Your task to perform on an android device: turn off picture-in-picture Image 0: 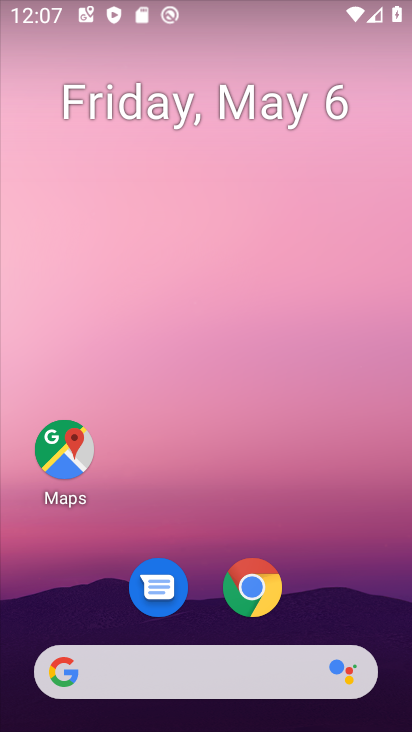
Step 0: drag from (184, 605) to (272, 0)
Your task to perform on an android device: turn off picture-in-picture Image 1: 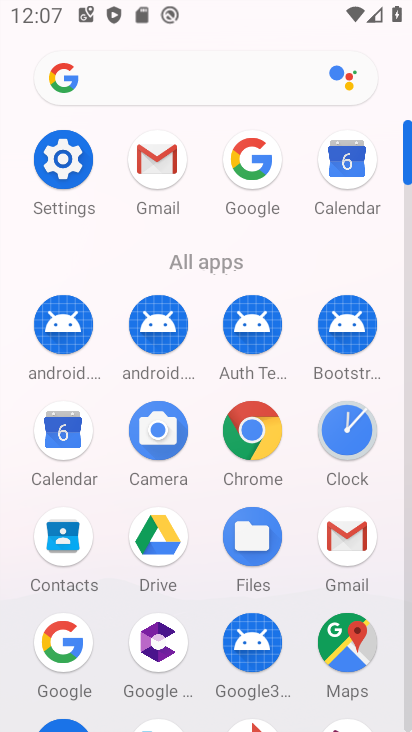
Step 1: click (71, 156)
Your task to perform on an android device: turn off picture-in-picture Image 2: 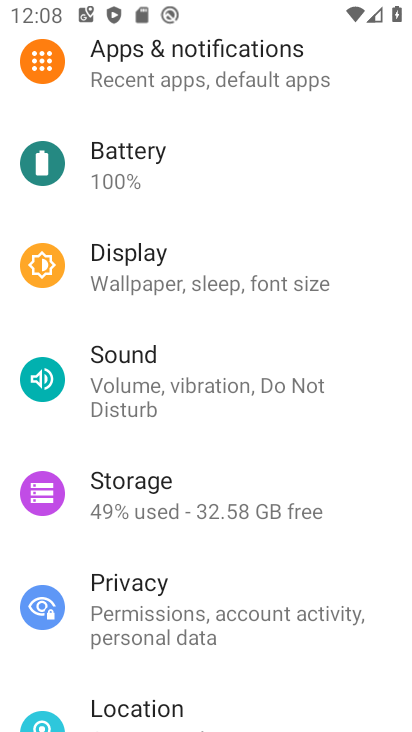
Step 2: drag from (247, 113) to (179, 420)
Your task to perform on an android device: turn off picture-in-picture Image 3: 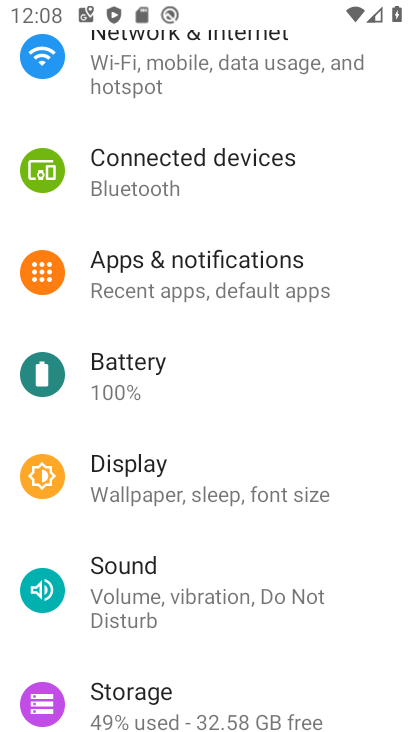
Step 3: click (186, 270)
Your task to perform on an android device: turn off picture-in-picture Image 4: 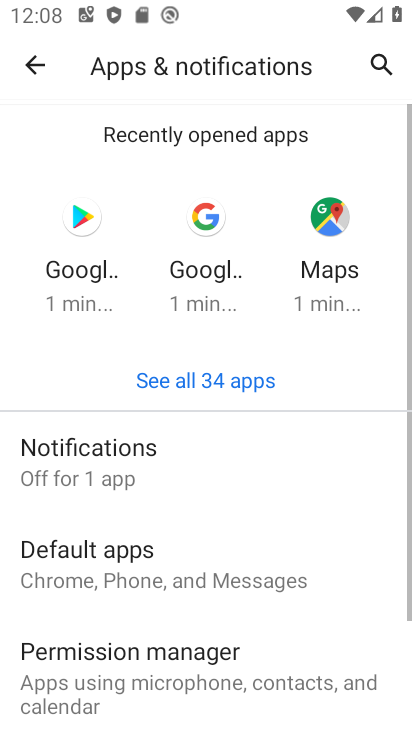
Step 4: drag from (186, 670) to (326, 25)
Your task to perform on an android device: turn off picture-in-picture Image 5: 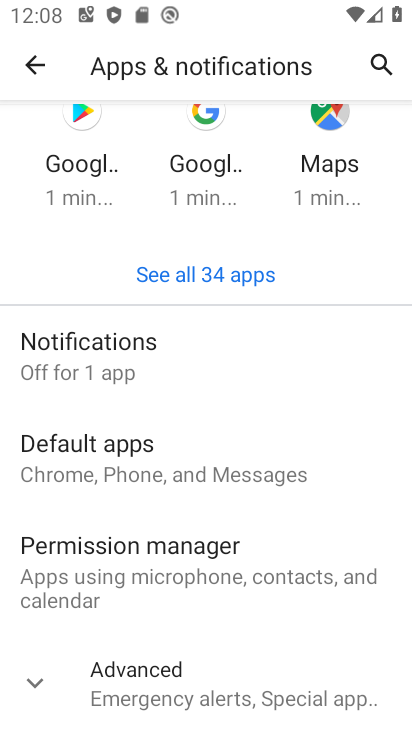
Step 5: drag from (203, 643) to (301, 24)
Your task to perform on an android device: turn off picture-in-picture Image 6: 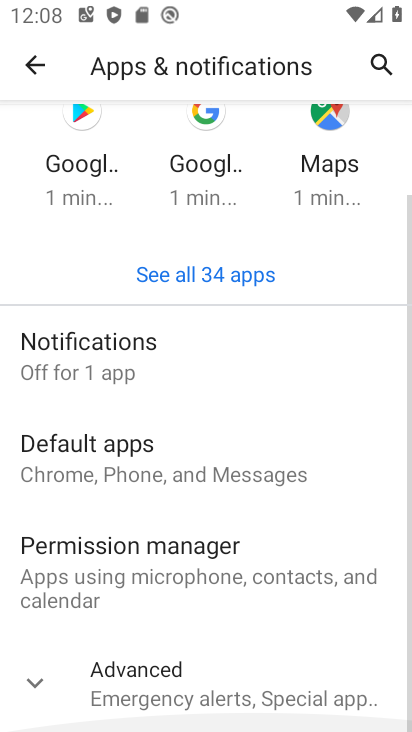
Step 6: click (250, 685)
Your task to perform on an android device: turn off picture-in-picture Image 7: 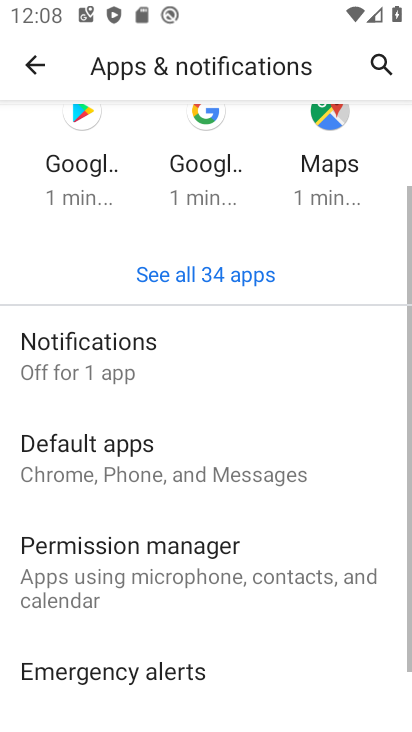
Step 7: drag from (232, 671) to (293, 124)
Your task to perform on an android device: turn off picture-in-picture Image 8: 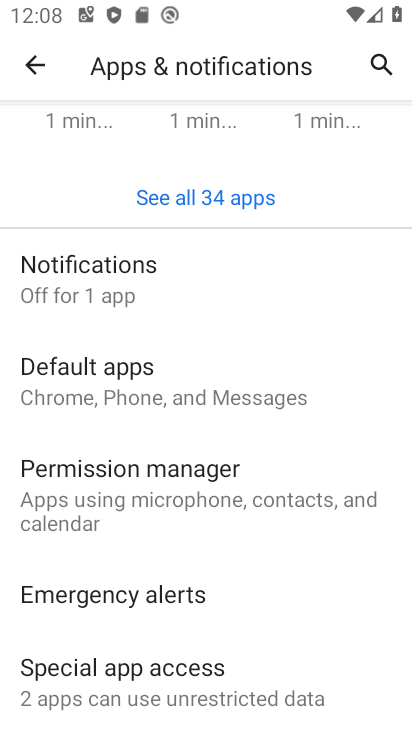
Step 8: click (149, 676)
Your task to perform on an android device: turn off picture-in-picture Image 9: 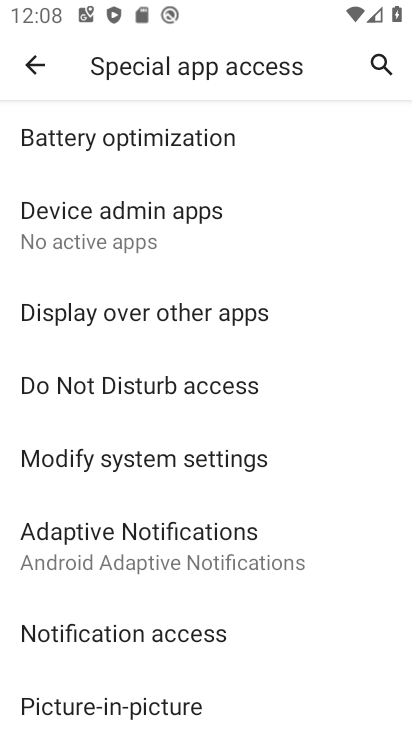
Step 9: click (140, 693)
Your task to perform on an android device: turn off picture-in-picture Image 10: 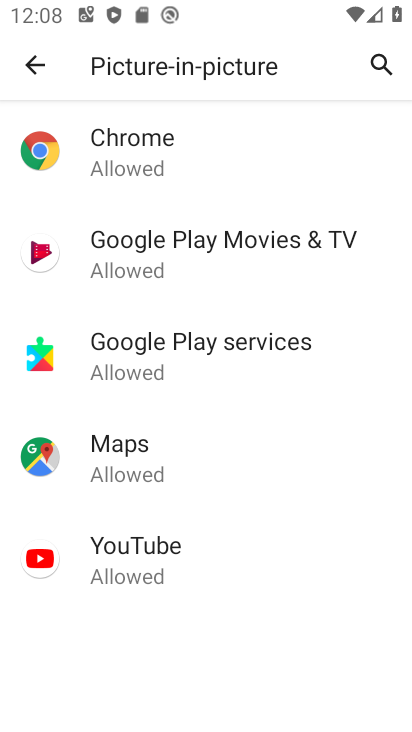
Step 10: click (129, 165)
Your task to perform on an android device: turn off picture-in-picture Image 11: 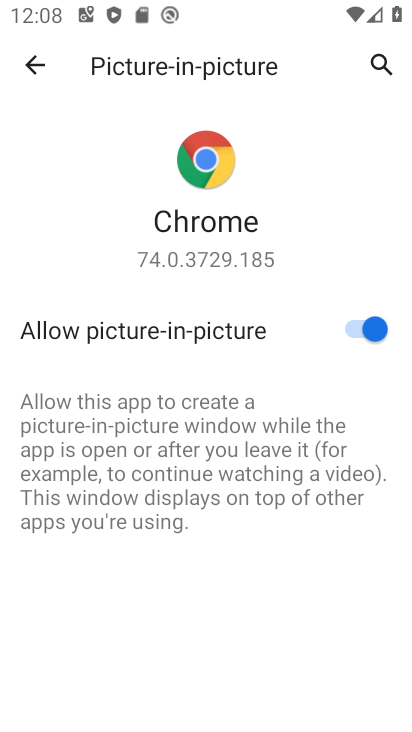
Step 11: click (364, 335)
Your task to perform on an android device: turn off picture-in-picture Image 12: 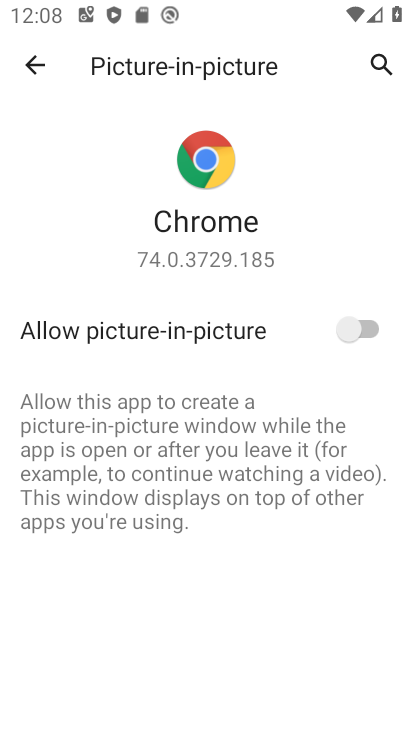
Step 12: task complete